Your task to perform on an android device: toggle notification dots Image 0: 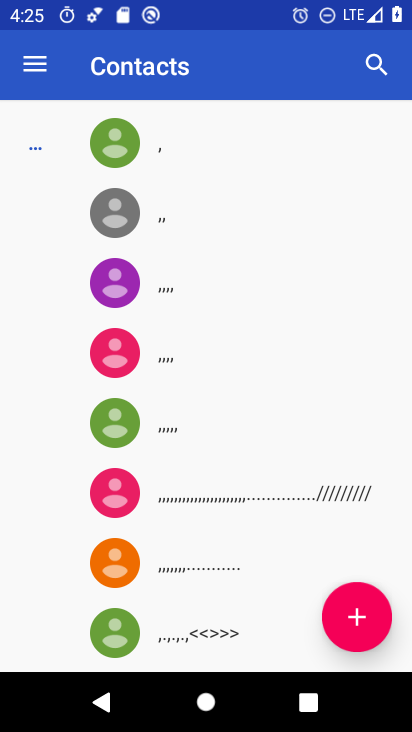
Step 0: press home button
Your task to perform on an android device: toggle notification dots Image 1: 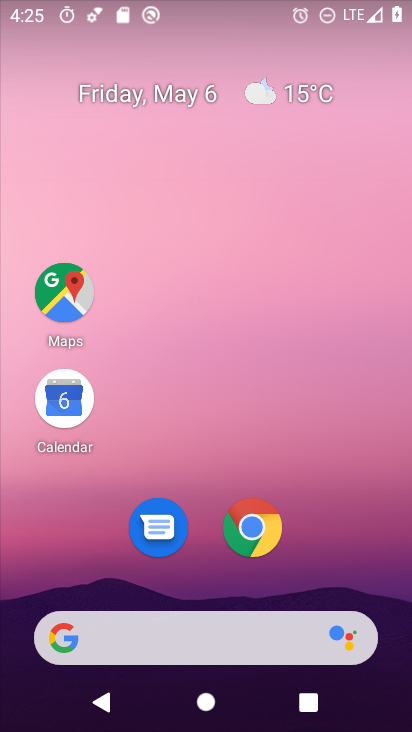
Step 1: drag from (320, 512) to (266, 132)
Your task to perform on an android device: toggle notification dots Image 2: 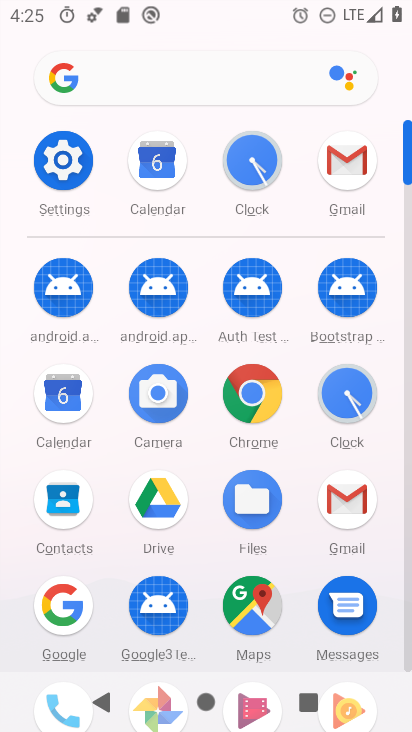
Step 2: click (79, 158)
Your task to perform on an android device: toggle notification dots Image 3: 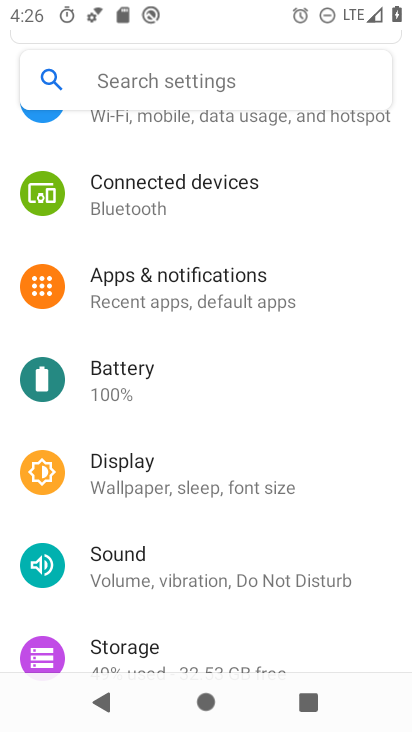
Step 3: click (171, 270)
Your task to perform on an android device: toggle notification dots Image 4: 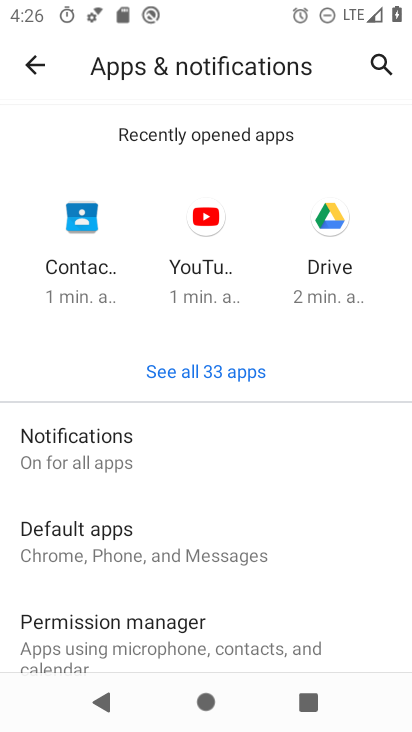
Step 4: drag from (247, 608) to (306, 132)
Your task to perform on an android device: toggle notification dots Image 5: 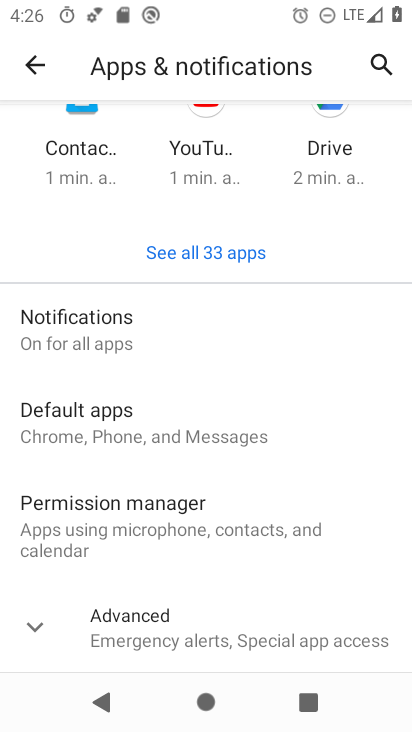
Step 5: click (113, 346)
Your task to perform on an android device: toggle notification dots Image 6: 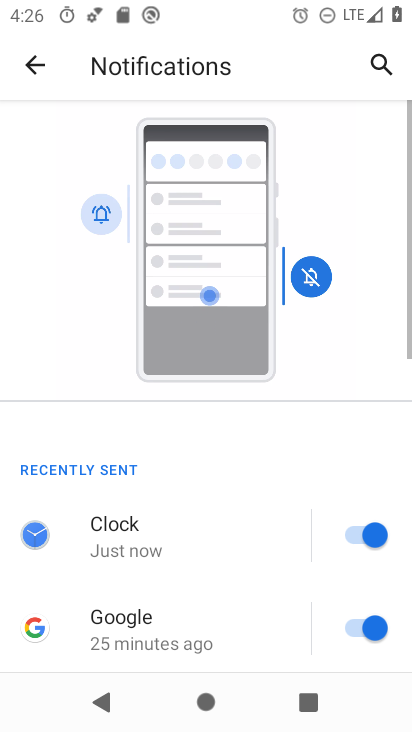
Step 6: drag from (226, 617) to (233, 155)
Your task to perform on an android device: toggle notification dots Image 7: 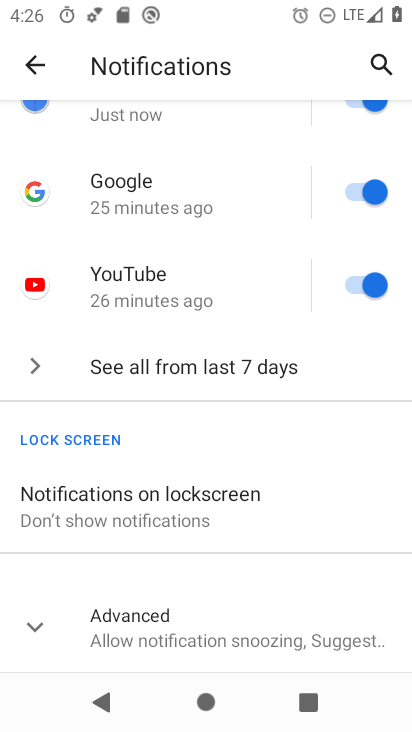
Step 7: drag from (161, 554) to (201, 196)
Your task to perform on an android device: toggle notification dots Image 8: 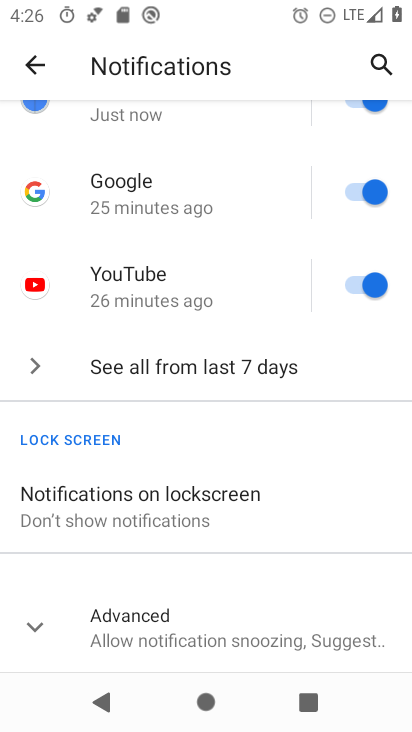
Step 8: click (134, 620)
Your task to perform on an android device: toggle notification dots Image 9: 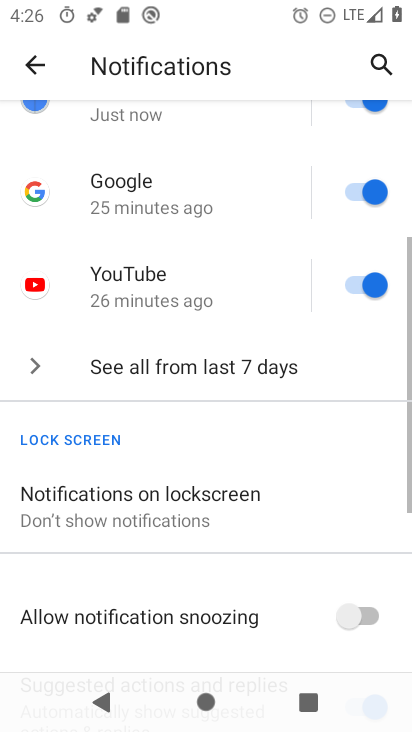
Step 9: drag from (193, 586) to (241, 197)
Your task to perform on an android device: toggle notification dots Image 10: 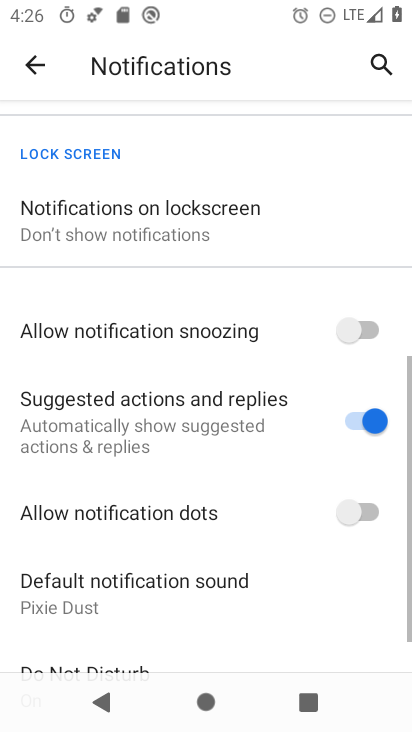
Step 10: drag from (264, 539) to (283, 164)
Your task to perform on an android device: toggle notification dots Image 11: 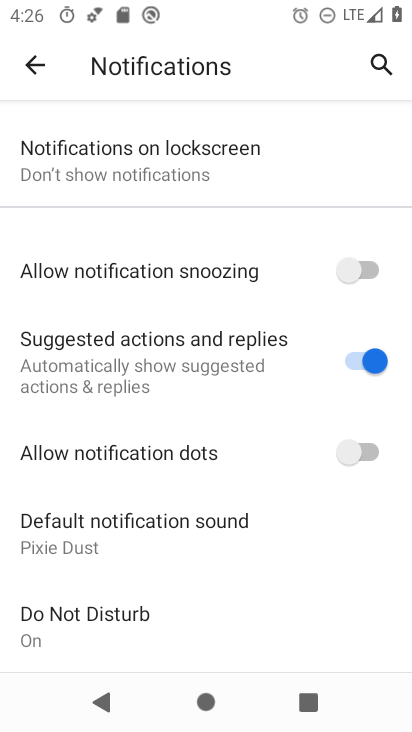
Step 11: click (358, 455)
Your task to perform on an android device: toggle notification dots Image 12: 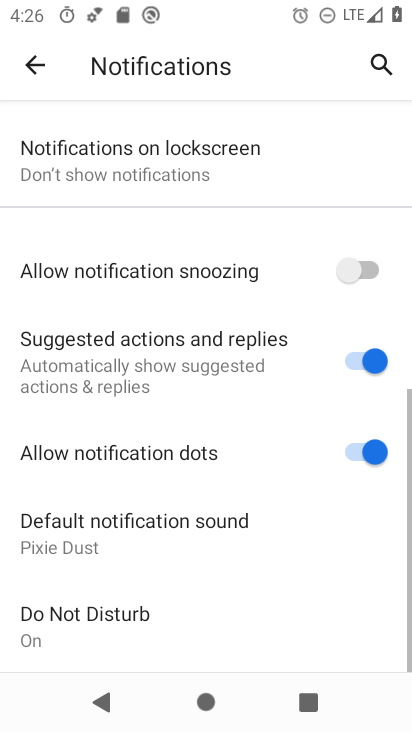
Step 12: task complete